Your task to perform on an android device: Show me the alarms in the clock app Image 0: 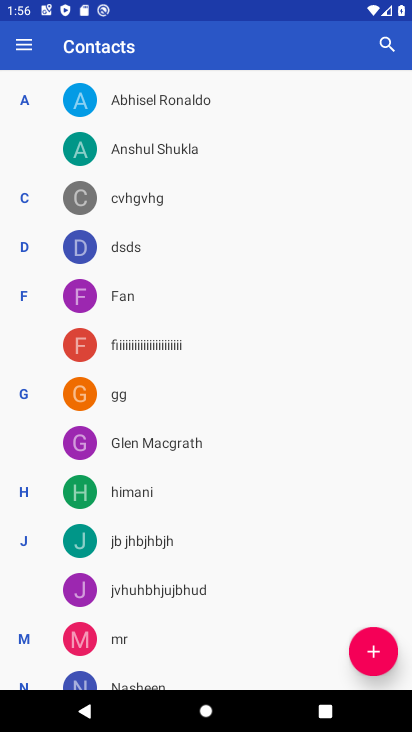
Step 0: press home button
Your task to perform on an android device: Show me the alarms in the clock app Image 1: 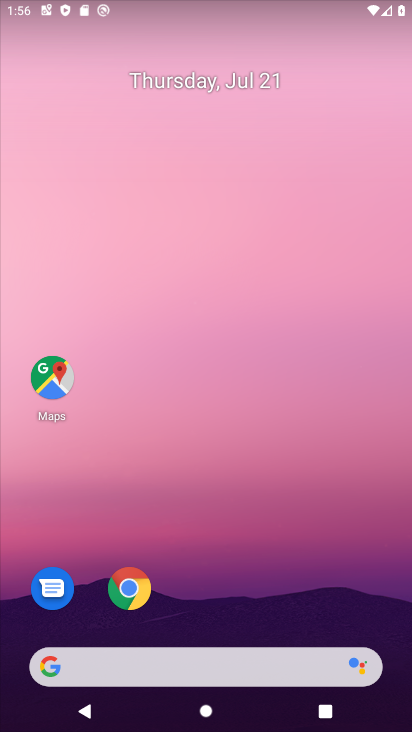
Step 1: drag from (246, 631) to (281, 35)
Your task to perform on an android device: Show me the alarms in the clock app Image 2: 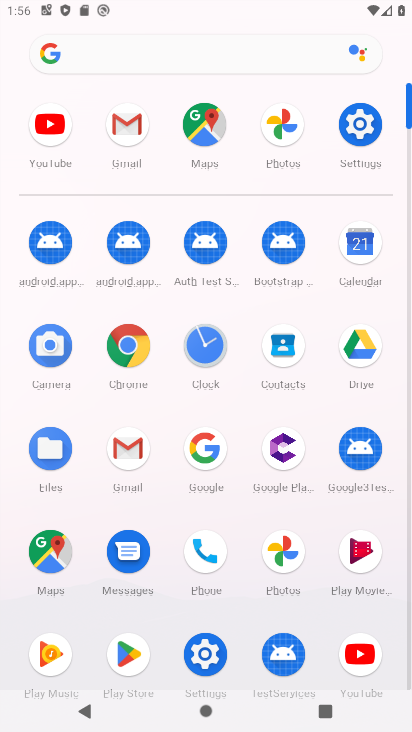
Step 2: click (214, 357)
Your task to perform on an android device: Show me the alarms in the clock app Image 3: 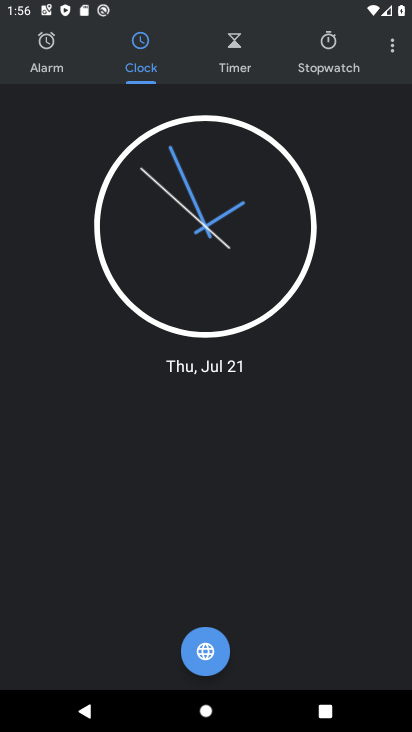
Step 3: click (62, 68)
Your task to perform on an android device: Show me the alarms in the clock app Image 4: 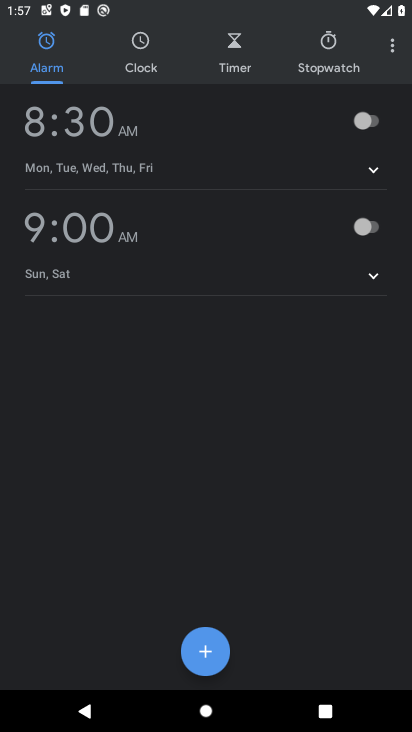
Step 4: task complete